Your task to perform on an android device: turn off priority inbox in the gmail app Image 0: 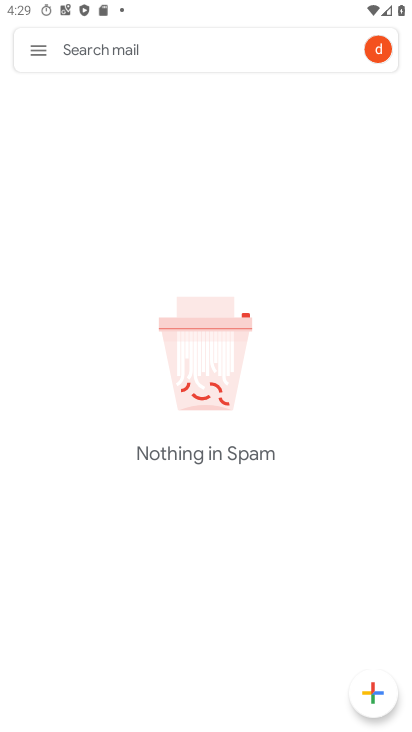
Step 0: press home button
Your task to perform on an android device: turn off priority inbox in the gmail app Image 1: 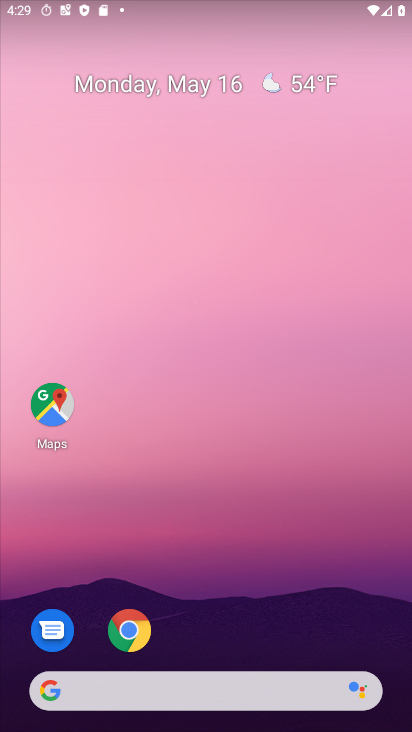
Step 1: drag from (250, 620) to (212, 351)
Your task to perform on an android device: turn off priority inbox in the gmail app Image 2: 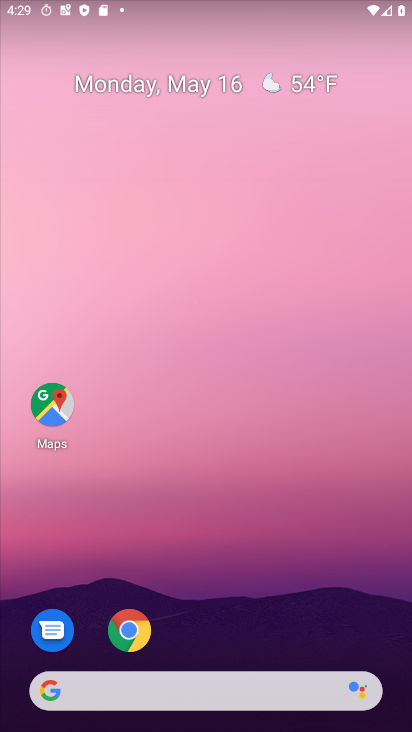
Step 2: drag from (206, 530) to (199, 294)
Your task to perform on an android device: turn off priority inbox in the gmail app Image 3: 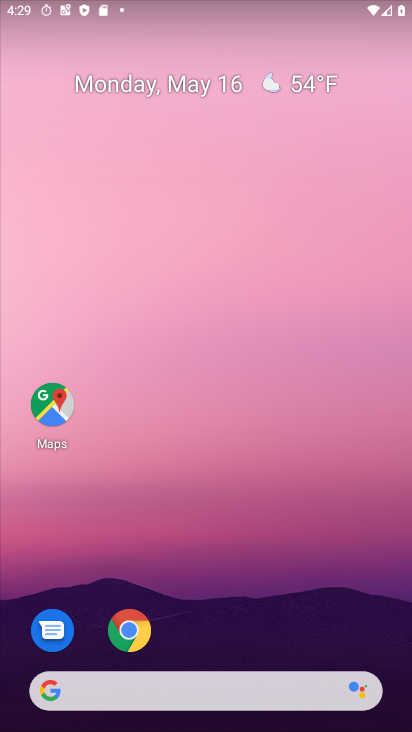
Step 3: click (199, 294)
Your task to perform on an android device: turn off priority inbox in the gmail app Image 4: 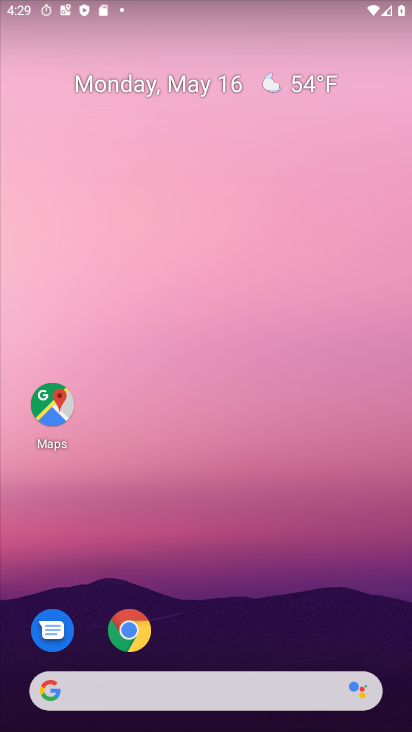
Step 4: drag from (246, 631) to (197, 302)
Your task to perform on an android device: turn off priority inbox in the gmail app Image 5: 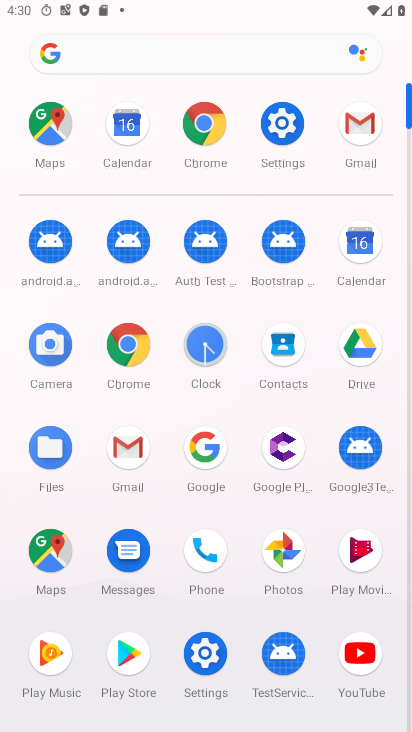
Step 5: click (350, 136)
Your task to perform on an android device: turn off priority inbox in the gmail app Image 6: 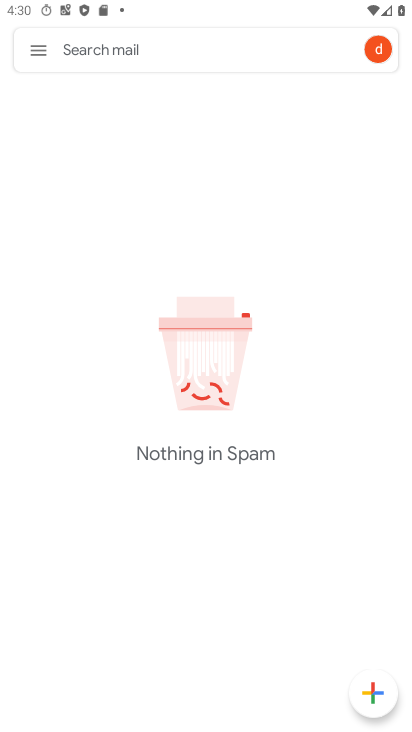
Step 6: click (35, 53)
Your task to perform on an android device: turn off priority inbox in the gmail app Image 7: 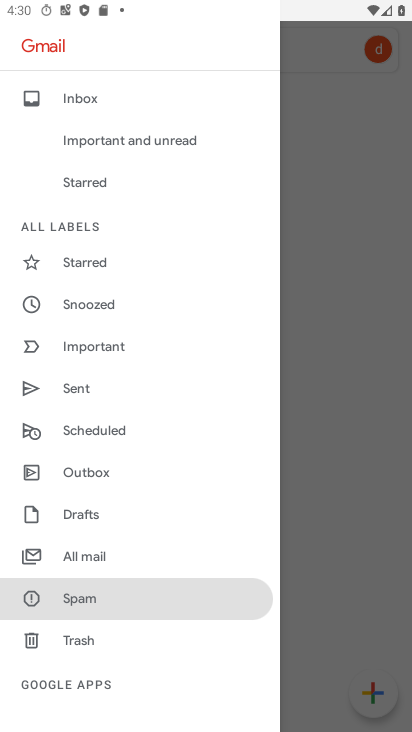
Step 7: drag from (115, 666) to (62, 165)
Your task to perform on an android device: turn off priority inbox in the gmail app Image 8: 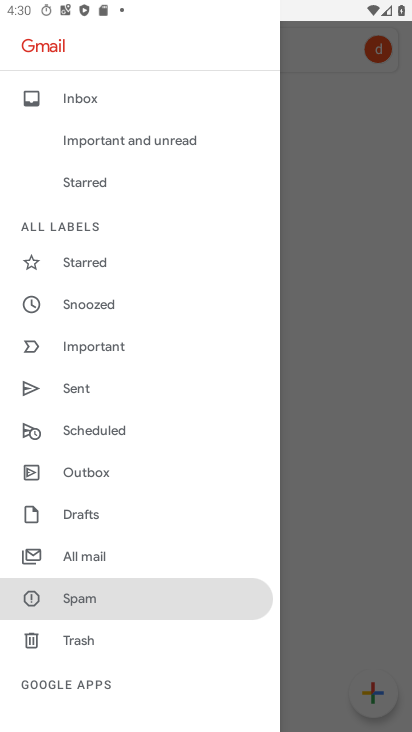
Step 8: drag from (64, 655) to (135, 195)
Your task to perform on an android device: turn off priority inbox in the gmail app Image 9: 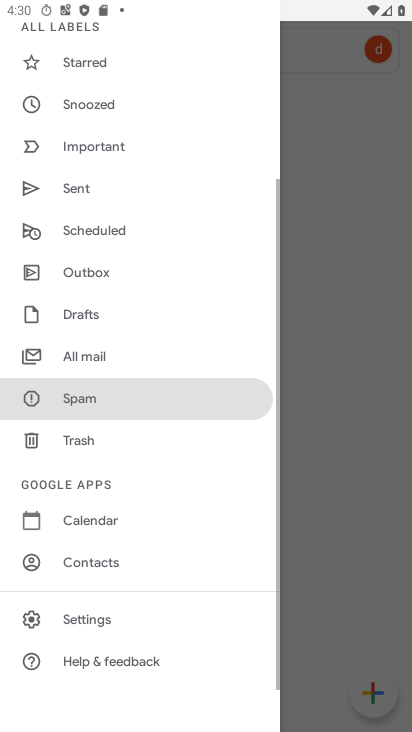
Step 9: click (103, 615)
Your task to perform on an android device: turn off priority inbox in the gmail app Image 10: 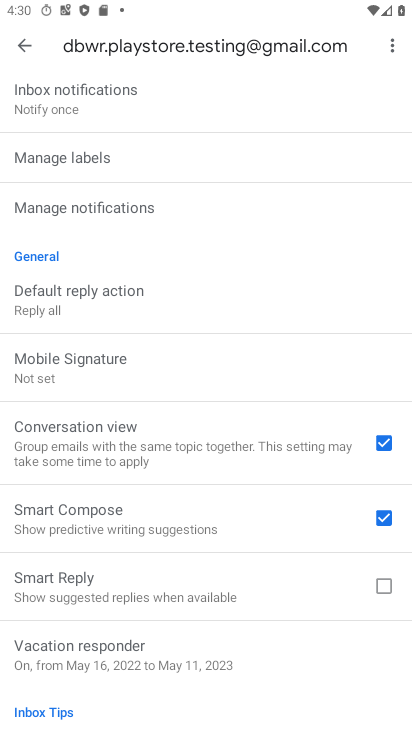
Step 10: drag from (243, 93) to (199, 594)
Your task to perform on an android device: turn off priority inbox in the gmail app Image 11: 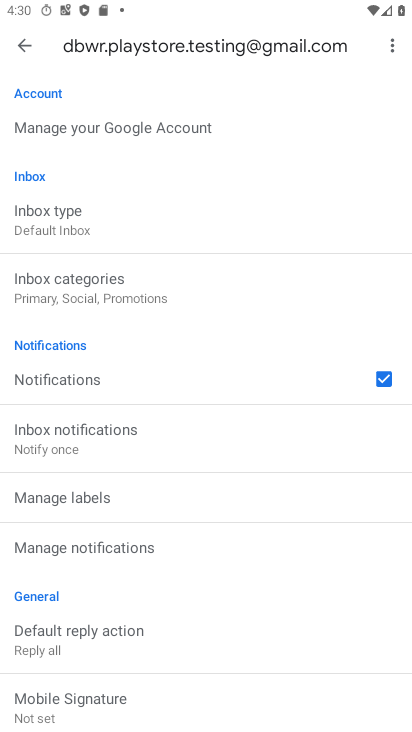
Step 11: click (125, 235)
Your task to perform on an android device: turn off priority inbox in the gmail app Image 12: 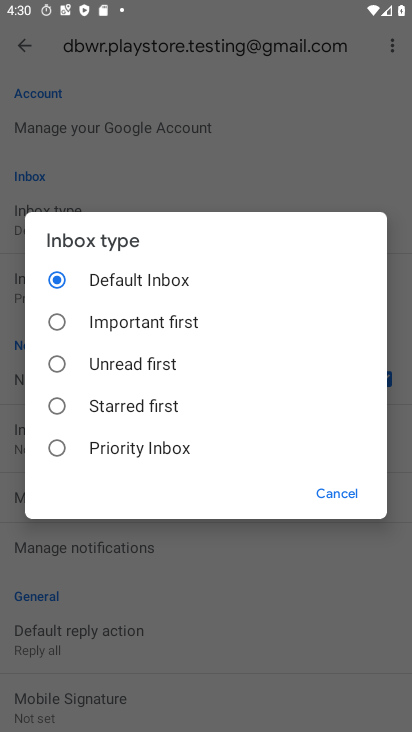
Step 12: task complete